Your task to perform on an android device: Open my contact list Image 0: 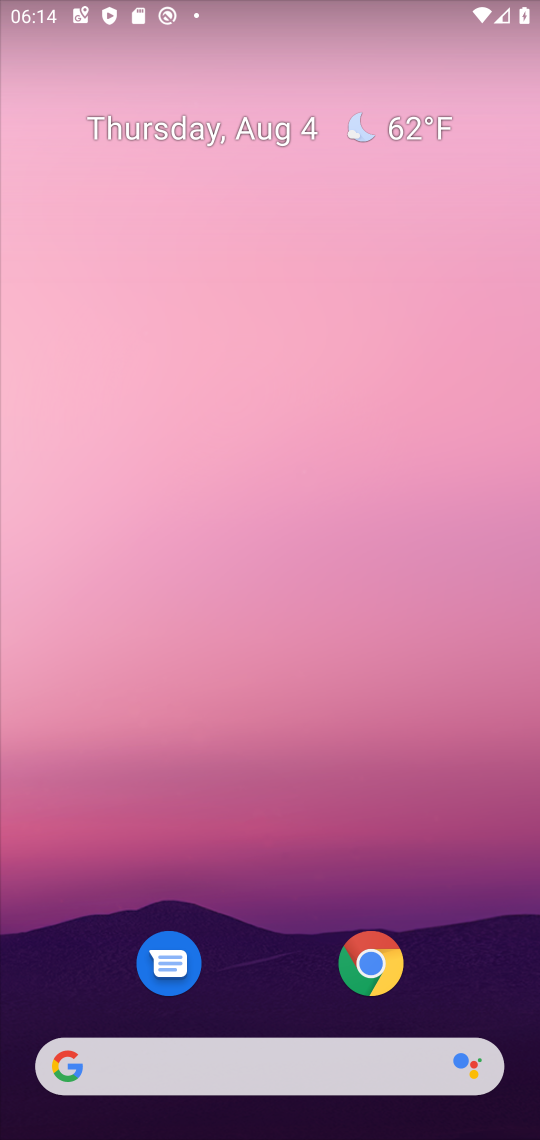
Step 0: press home button
Your task to perform on an android device: Open my contact list Image 1: 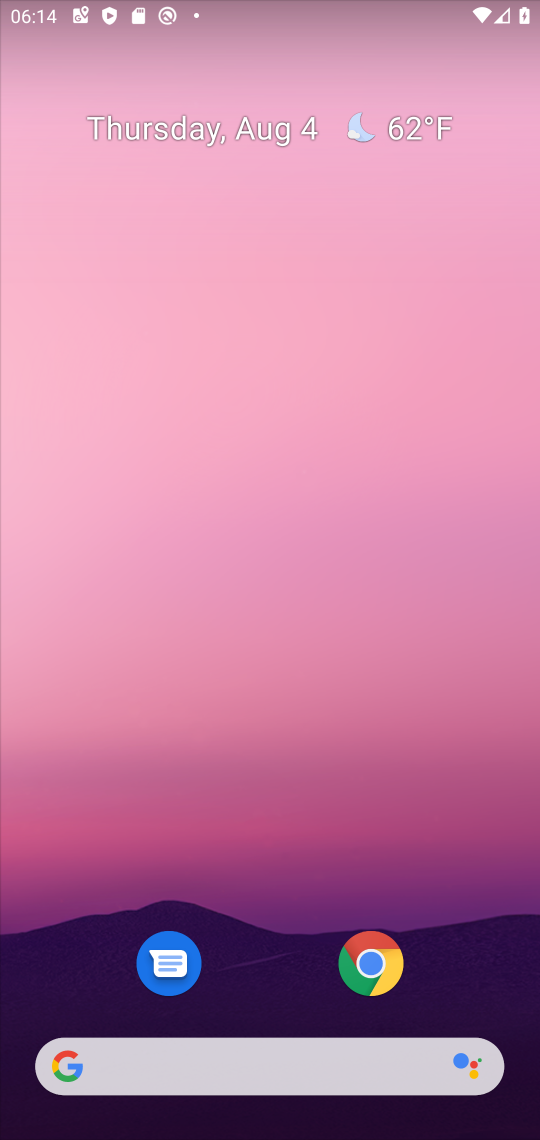
Step 1: drag from (275, 898) to (215, 242)
Your task to perform on an android device: Open my contact list Image 2: 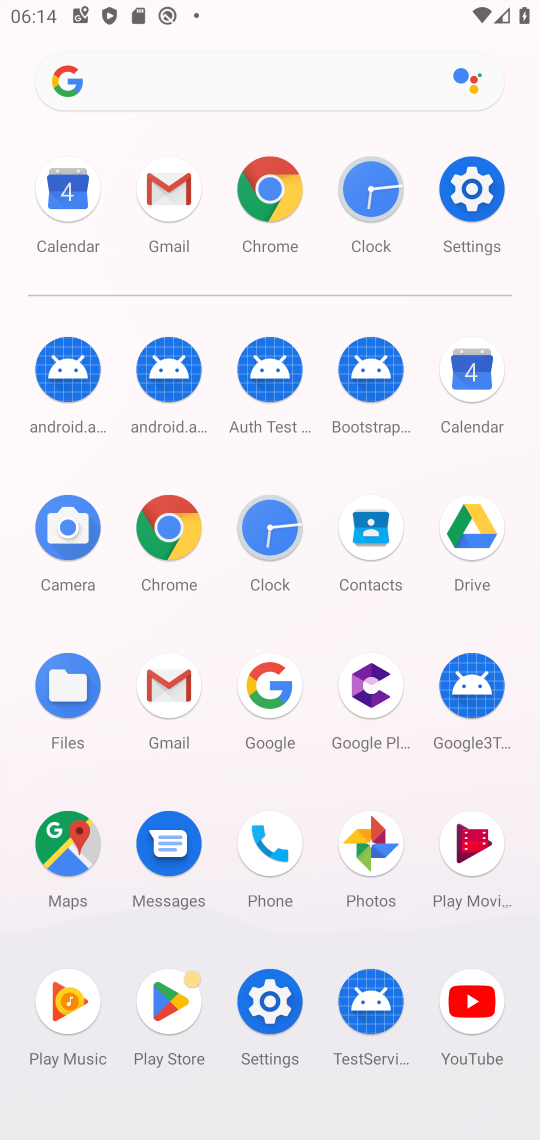
Step 2: click (371, 533)
Your task to perform on an android device: Open my contact list Image 3: 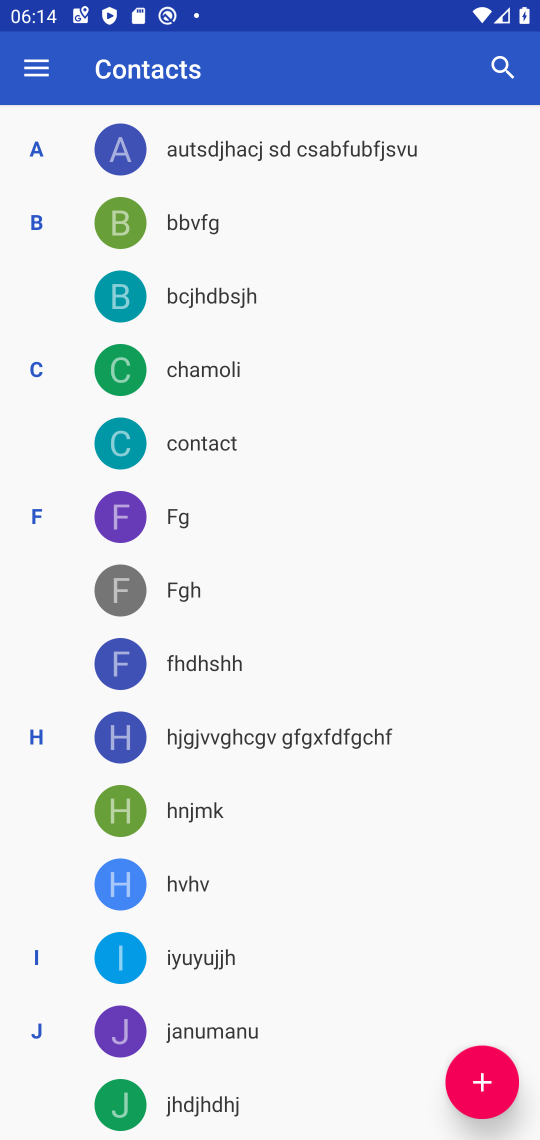
Step 3: task complete